Your task to perform on an android device: How much does a 3 bedroom apartment rent for in Seattle? Image 0: 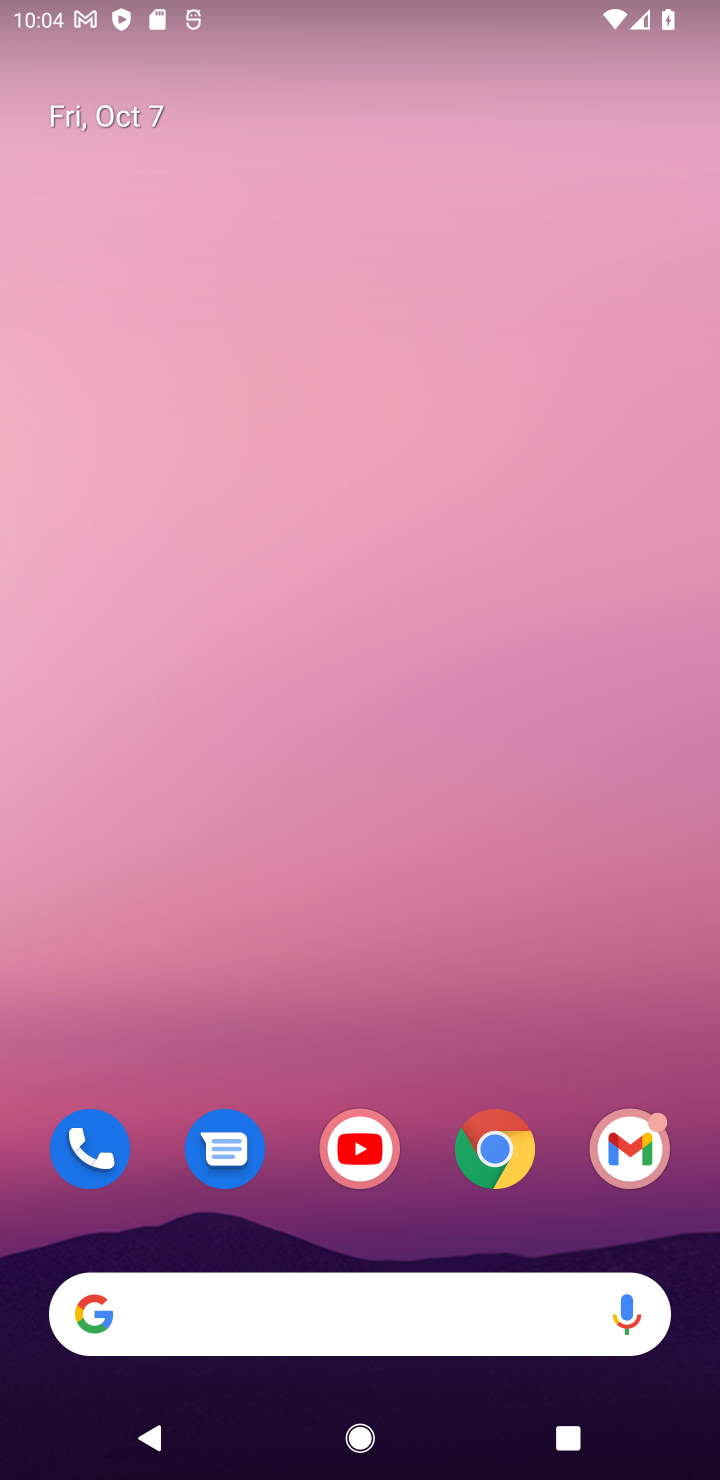
Step 0: click (234, 1338)
Your task to perform on an android device: How much does a 3 bedroom apartment rent for in Seattle? Image 1: 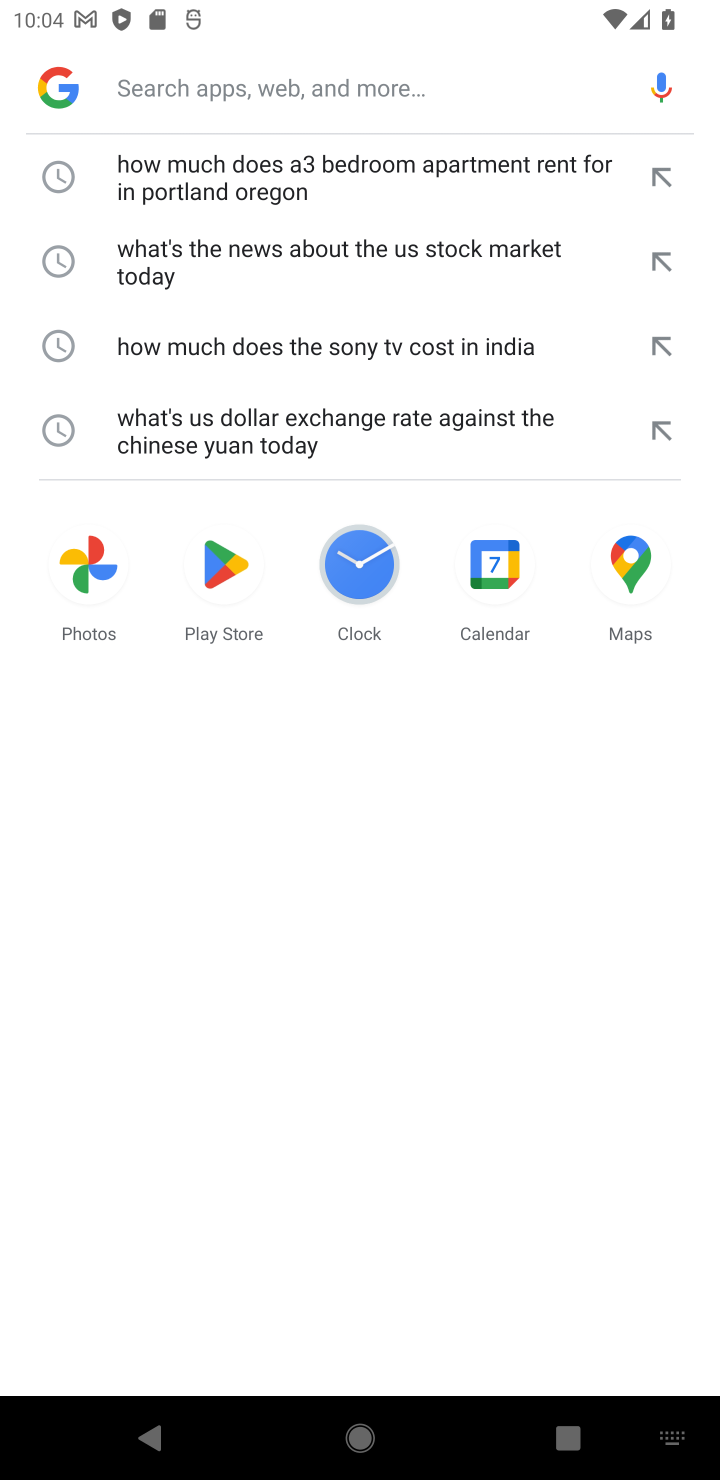
Step 1: type "How much does a 3 bedroom apartment rent for in Seattle?"
Your task to perform on an android device: How much does a 3 bedroom apartment rent for in Seattle? Image 2: 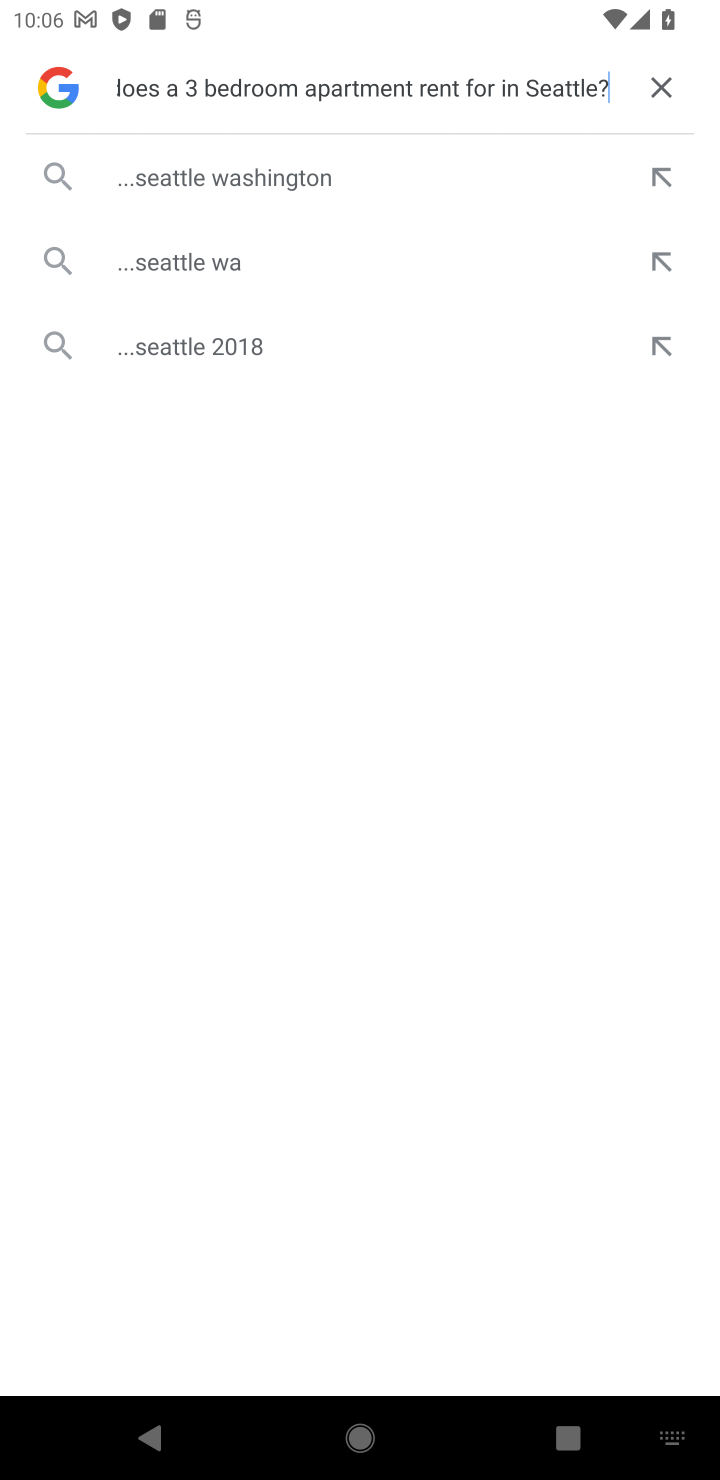
Step 2: click (217, 160)
Your task to perform on an android device: How much does a 3 bedroom apartment rent for in Seattle? Image 3: 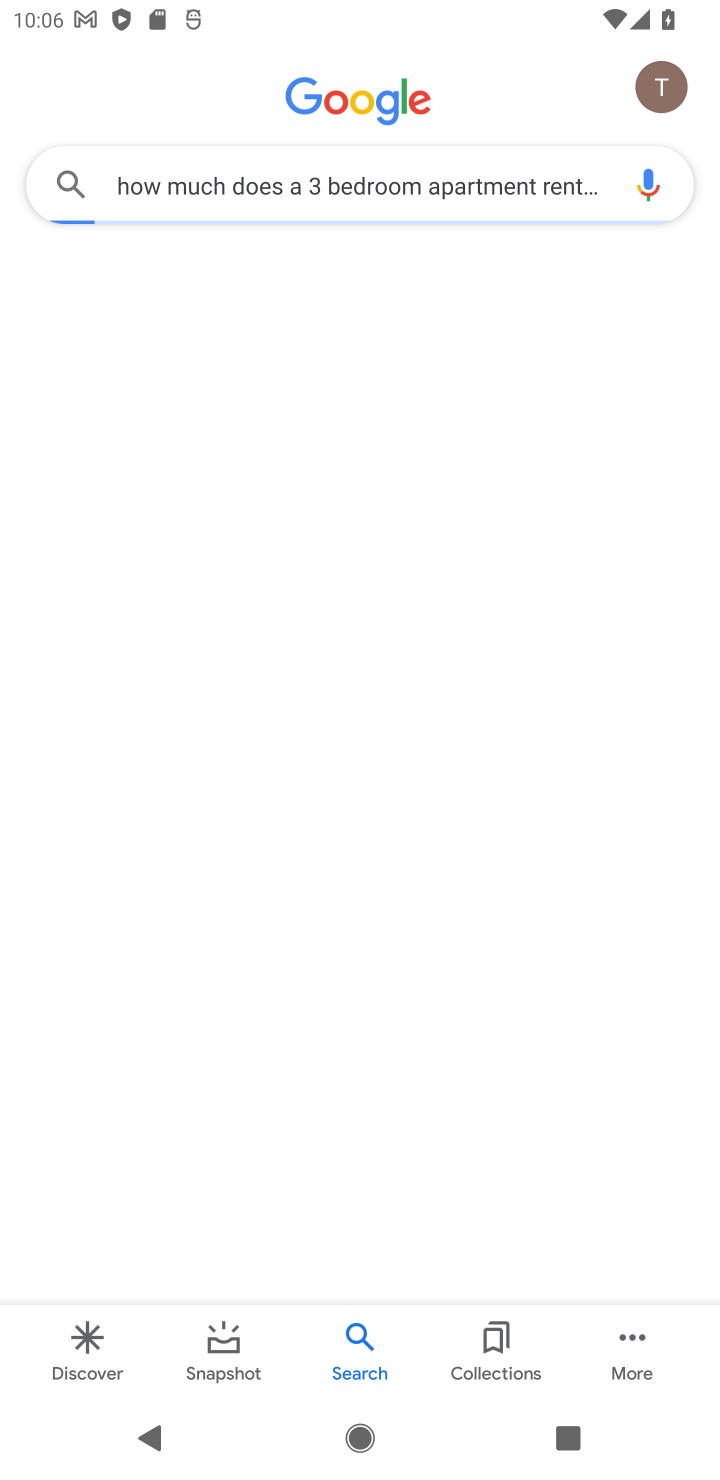
Step 3: task complete